Your task to perform on an android device: Go to wifi settings Image 0: 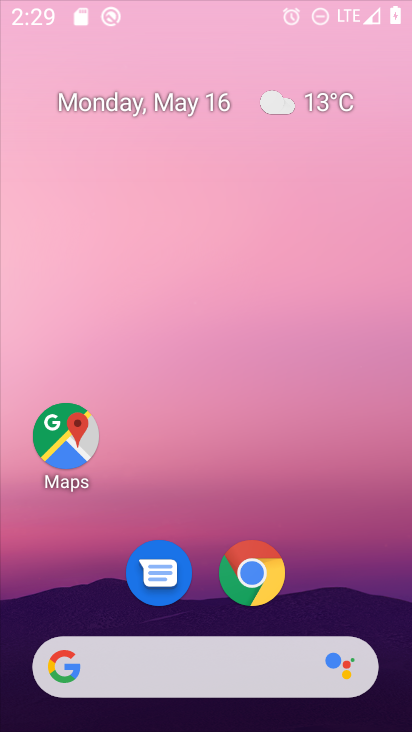
Step 0: click (367, 353)
Your task to perform on an android device: Go to wifi settings Image 1: 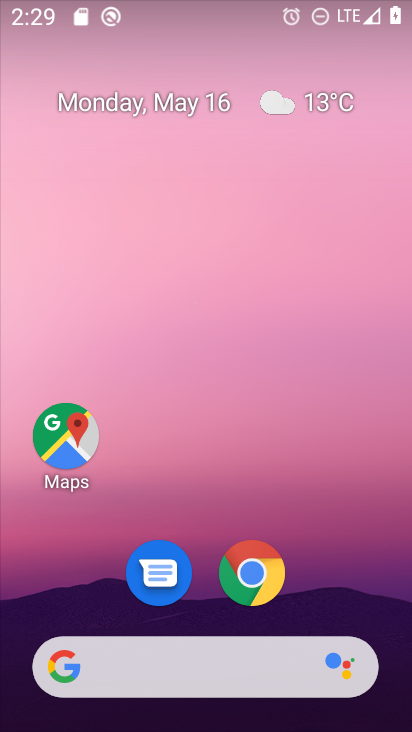
Step 1: drag from (241, 635) to (190, 45)
Your task to perform on an android device: Go to wifi settings Image 2: 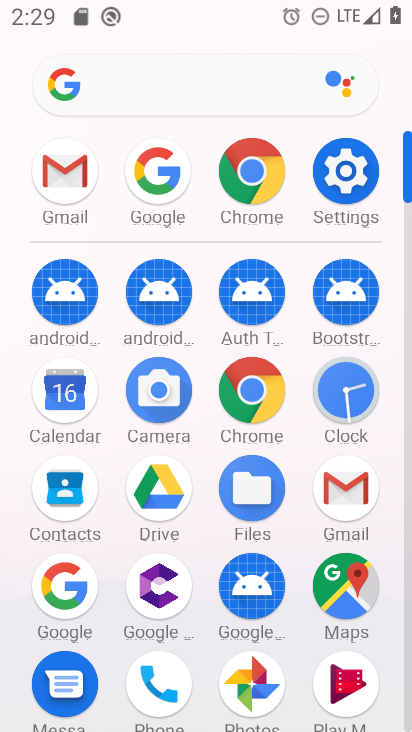
Step 2: click (327, 196)
Your task to perform on an android device: Go to wifi settings Image 3: 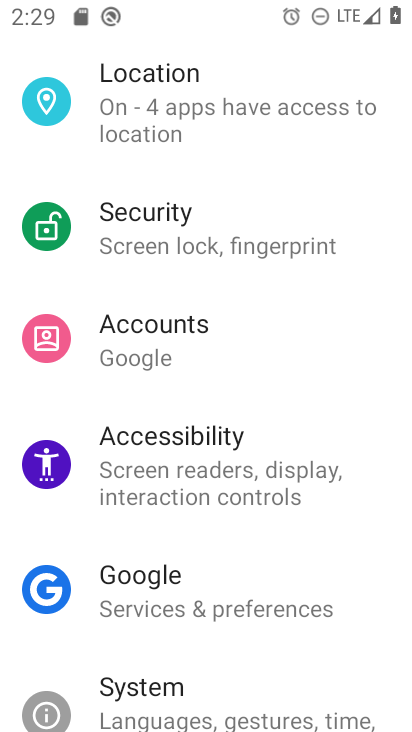
Step 3: drag from (198, 159) to (253, 619)
Your task to perform on an android device: Go to wifi settings Image 4: 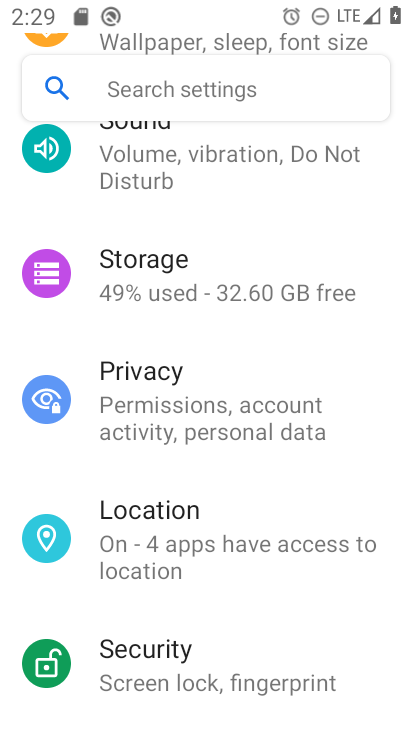
Step 4: drag from (216, 170) to (276, 591)
Your task to perform on an android device: Go to wifi settings Image 5: 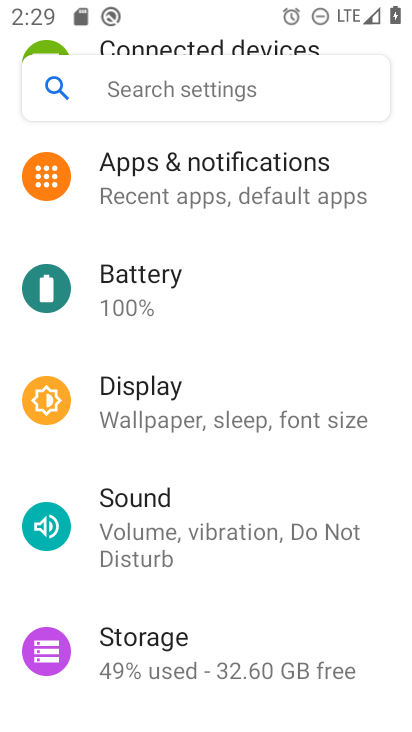
Step 5: drag from (224, 198) to (262, 555)
Your task to perform on an android device: Go to wifi settings Image 6: 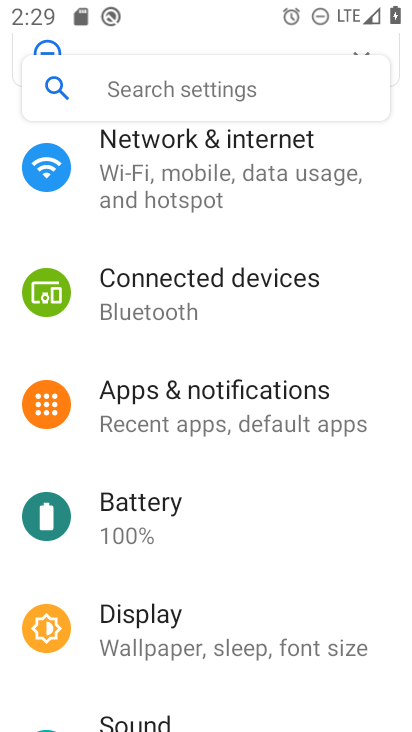
Step 6: click (196, 217)
Your task to perform on an android device: Go to wifi settings Image 7: 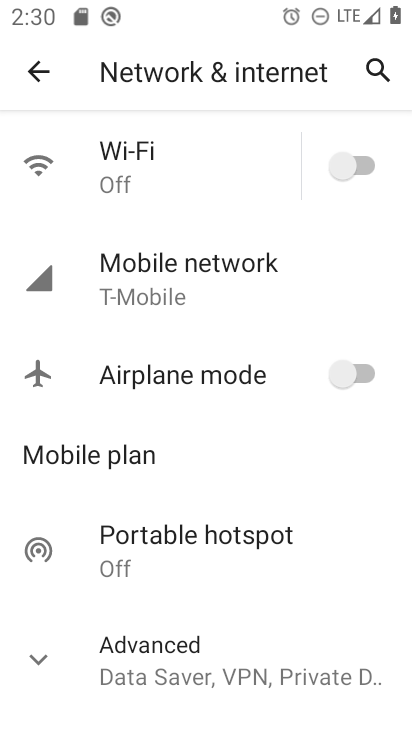
Step 7: click (141, 199)
Your task to perform on an android device: Go to wifi settings Image 8: 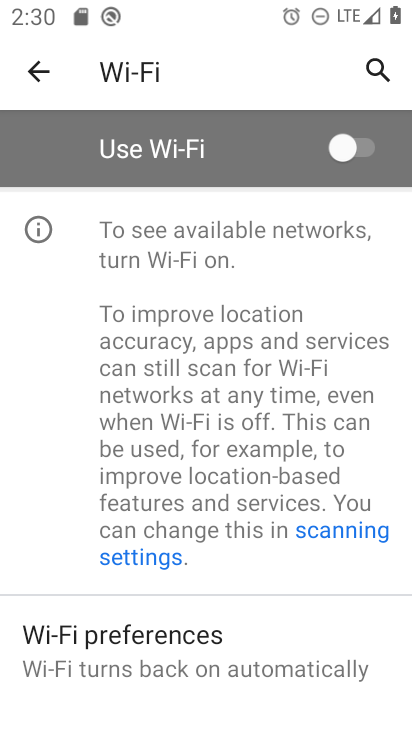
Step 8: task complete